Your task to perform on an android device: open wifi settings Image 0: 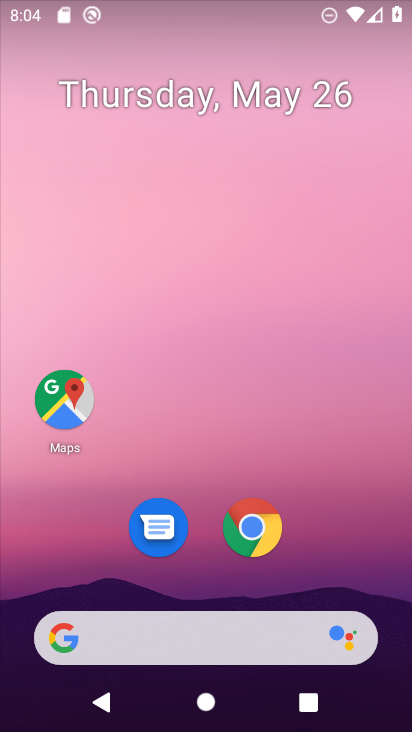
Step 0: press home button
Your task to perform on an android device: open wifi settings Image 1: 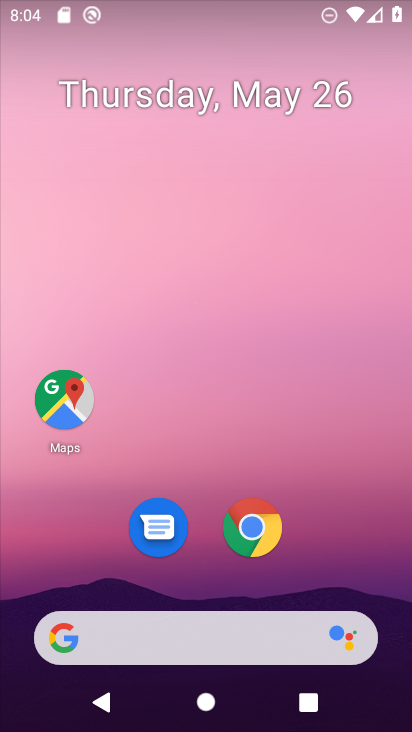
Step 1: drag from (215, 5) to (219, 437)
Your task to perform on an android device: open wifi settings Image 2: 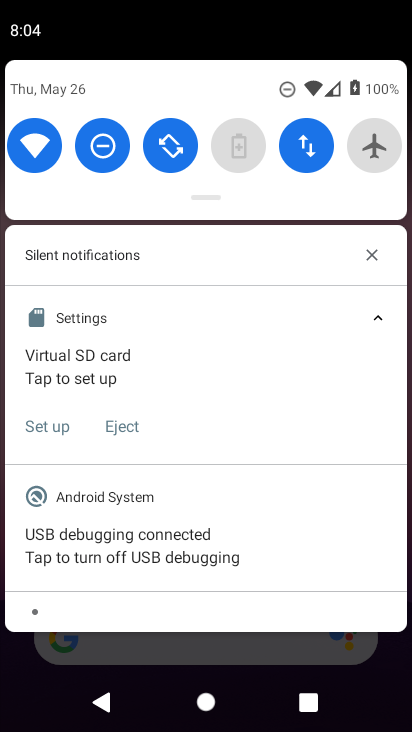
Step 2: click (23, 145)
Your task to perform on an android device: open wifi settings Image 3: 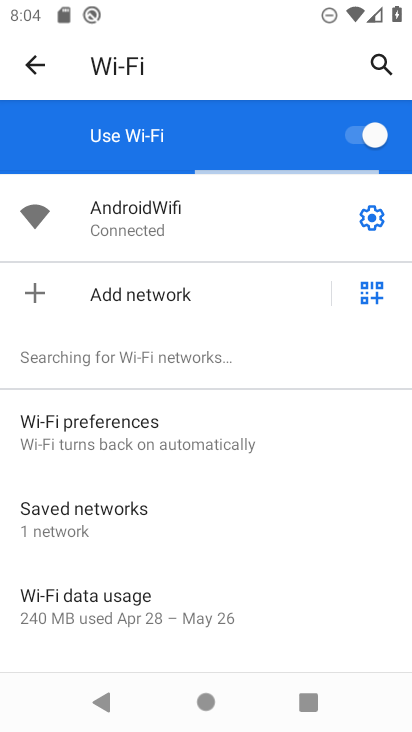
Step 3: click (367, 224)
Your task to perform on an android device: open wifi settings Image 4: 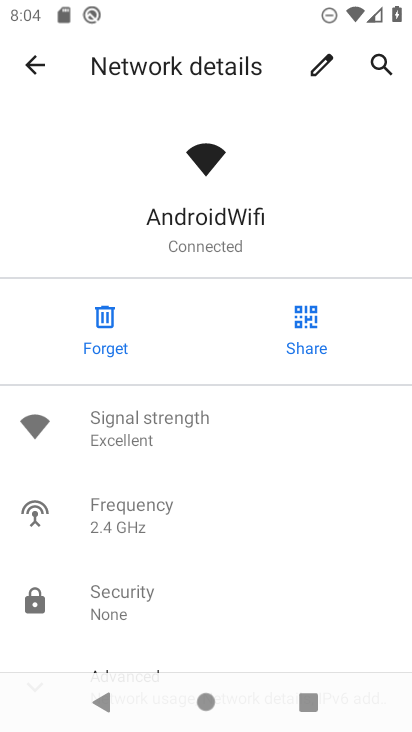
Step 4: task complete